Your task to perform on an android device: set the timer Image 0: 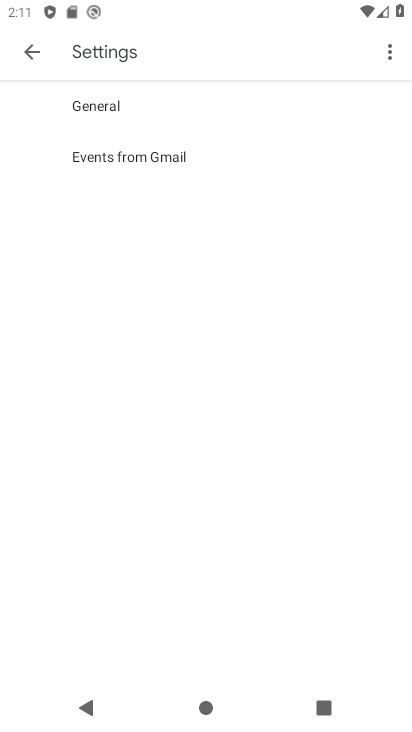
Step 0: press home button
Your task to perform on an android device: set the timer Image 1: 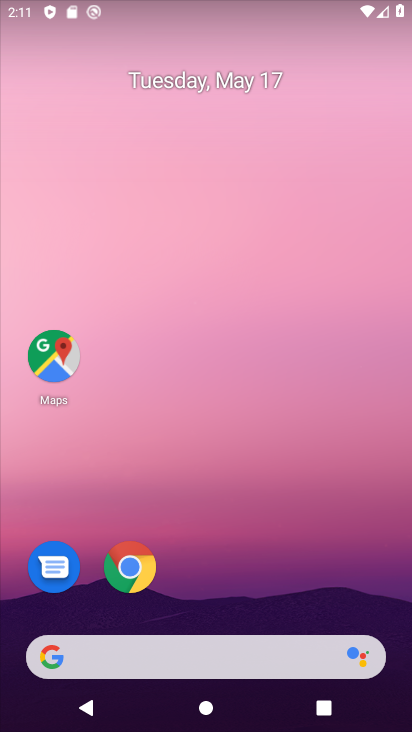
Step 1: drag from (176, 645) to (150, 55)
Your task to perform on an android device: set the timer Image 2: 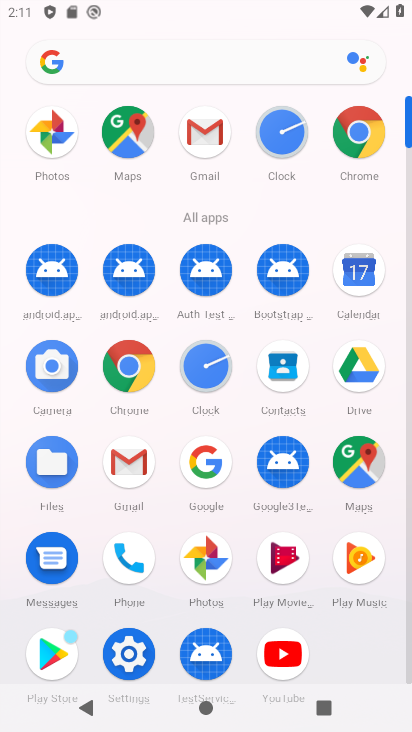
Step 2: click (210, 375)
Your task to perform on an android device: set the timer Image 3: 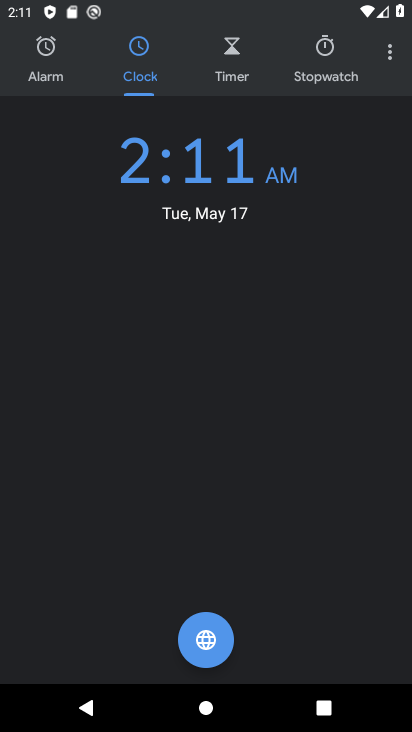
Step 3: click (234, 57)
Your task to perform on an android device: set the timer Image 4: 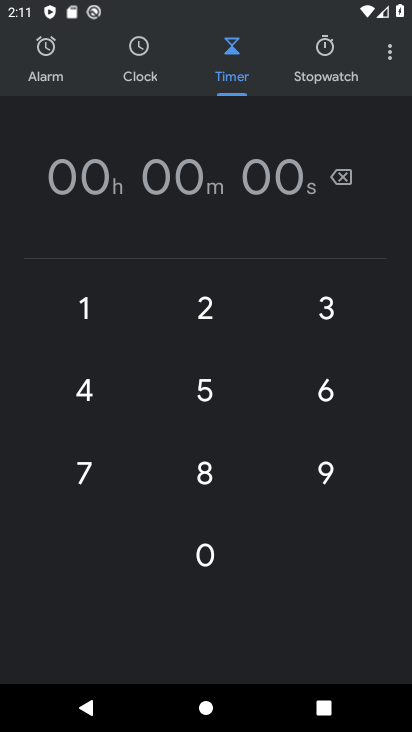
Step 4: click (89, 296)
Your task to perform on an android device: set the timer Image 5: 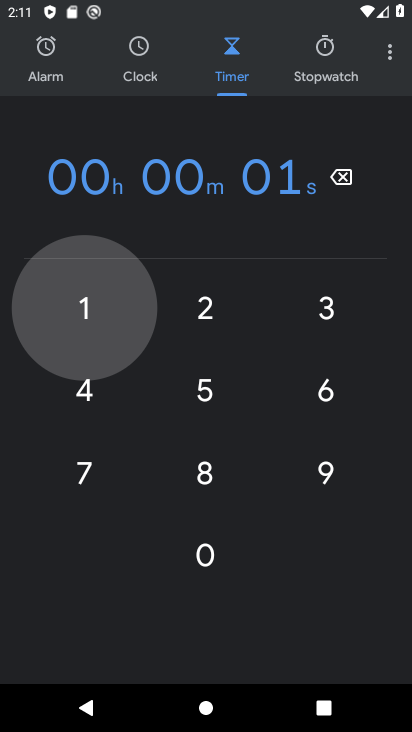
Step 5: drag from (89, 296) to (202, 361)
Your task to perform on an android device: set the timer Image 6: 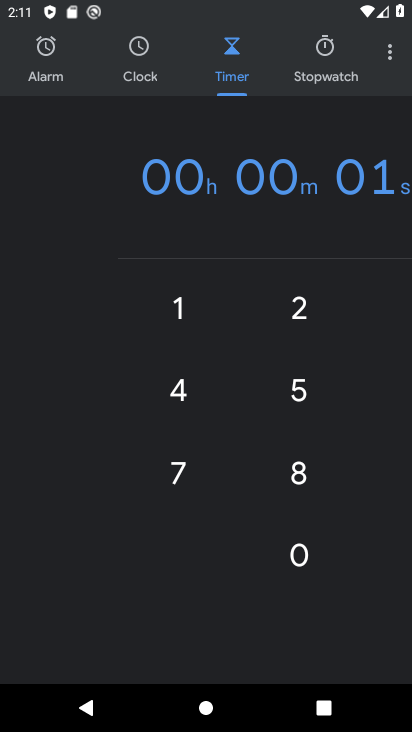
Step 6: click (202, 361)
Your task to perform on an android device: set the timer Image 7: 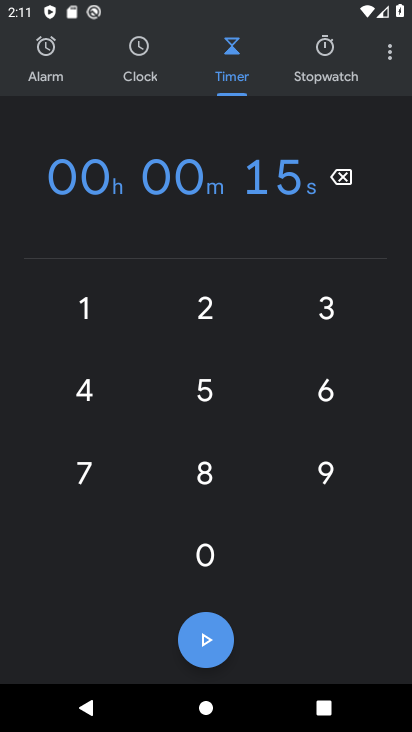
Step 7: click (326, 453)
Your task to perform on an android device: set the timer Image 8: 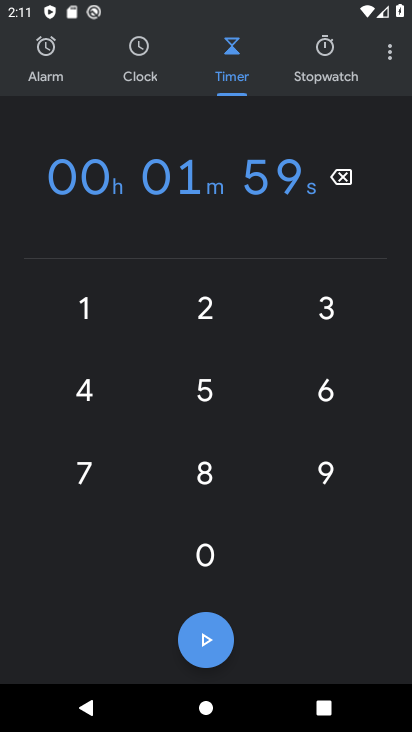
Step 8: click (93, 482)
Your task to perform on an android device: set the timer Image 9: 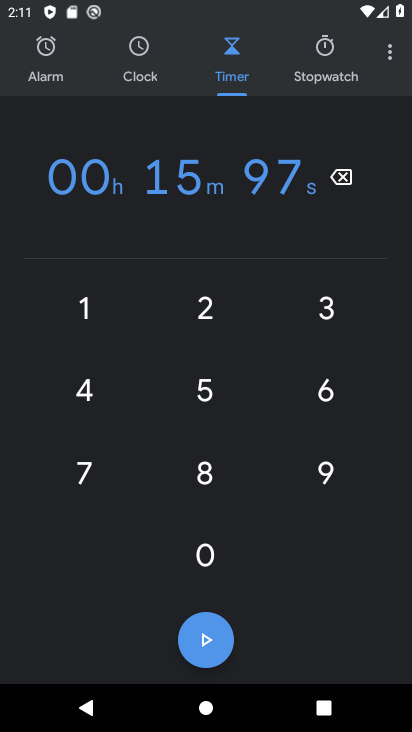
Step 9: click (223, 627)
Your task to perform on an android device: set the timer Image 10: 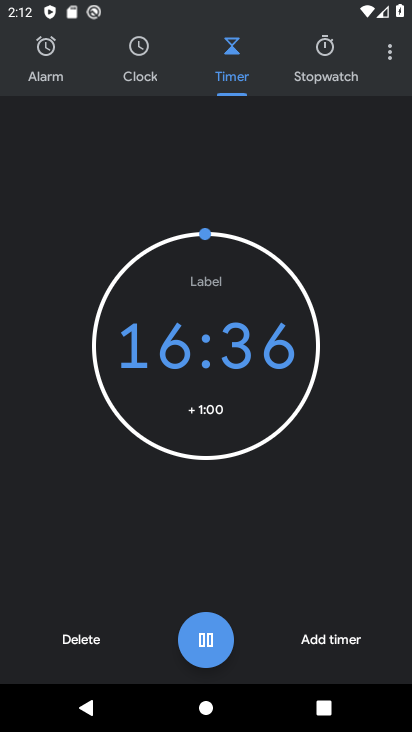
Step 10: task complete